Your task to perform on an android device: add a contact Image 0: 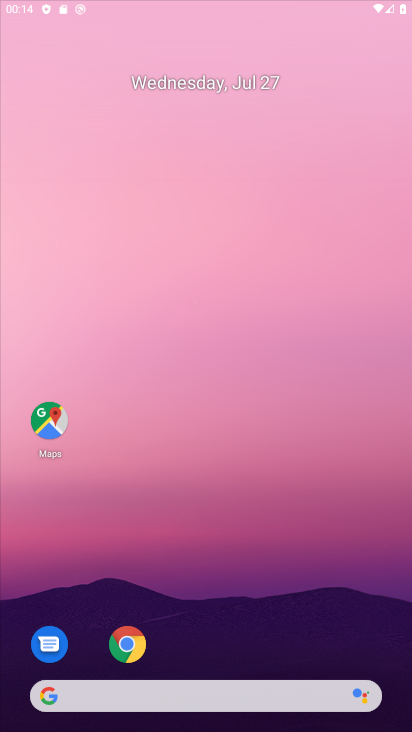
Step 0: drag from (195, 32) to (158, 57)
Your task to perform on an android device: add a contact Image 1: 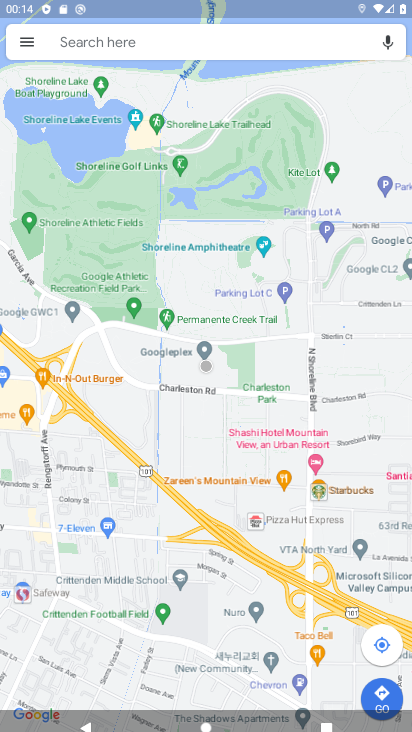
Step 1: drag from (197, 395) to (212, 13)
Your task to perform on an android device: add a contact Image 2: 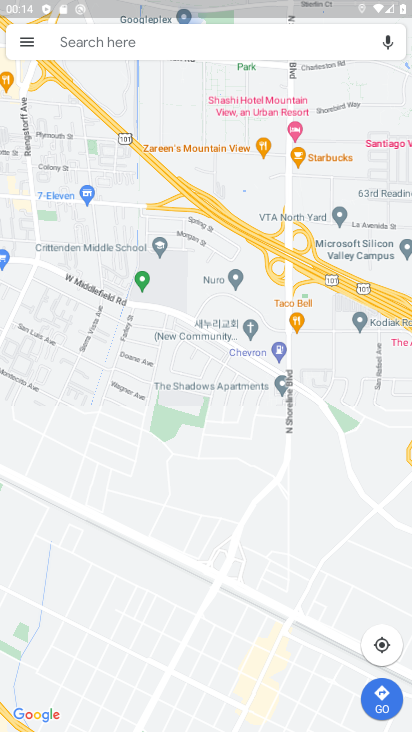
Step 2: press back button
Your task to perform on an android device: add a contact Image 3: 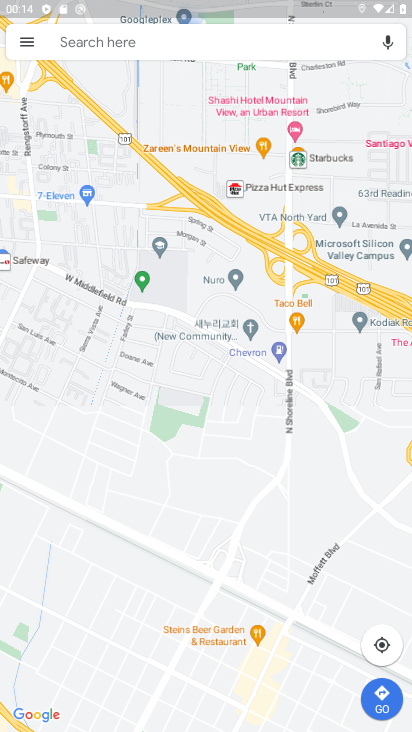
Step 3: press back button
Your task to perform on an android device: add a contact Image 4: 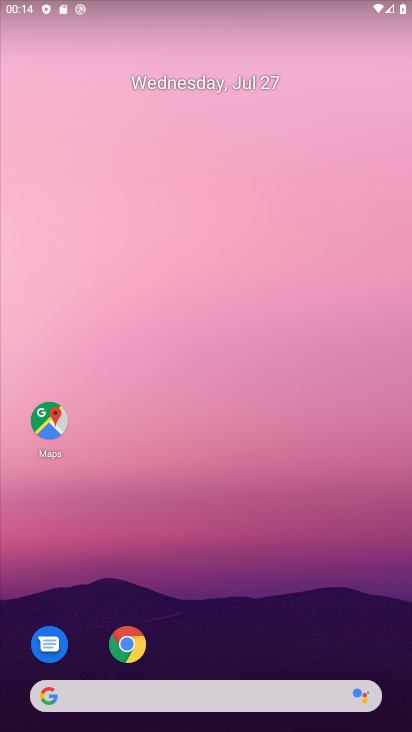
Step 4: drag from (146, 124) to (164, 29)
Your task to perform on an android device: add a contact Image 5: 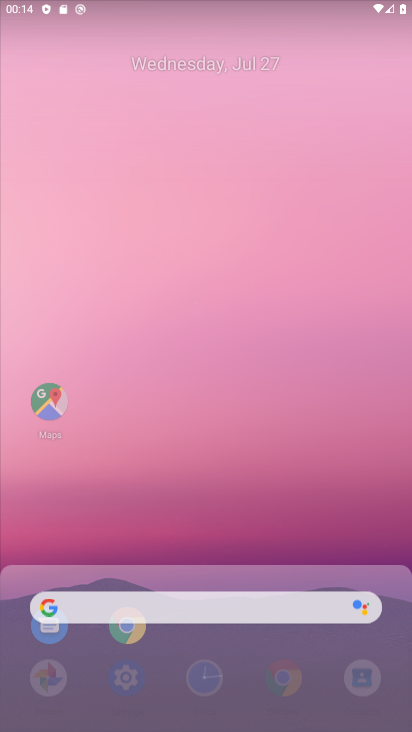
Step 5: drag from (224, 397) to (198, 15)
Your task to perform on an android device: add a contact Image 6: 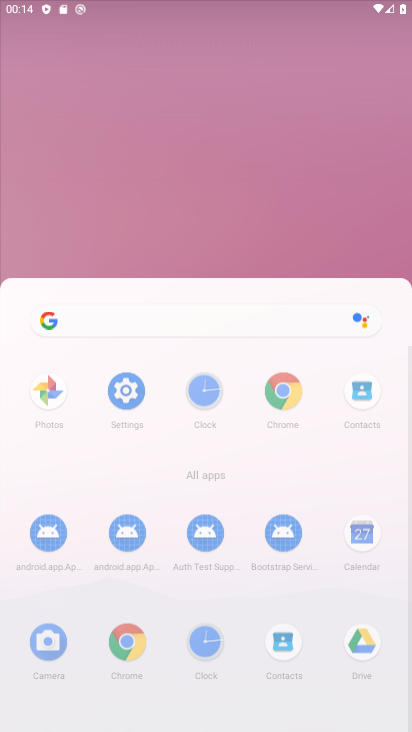
Step 6: drag from (146, 652) to (71, 81)
Your task to perform on an android device: add a contact Image 7: 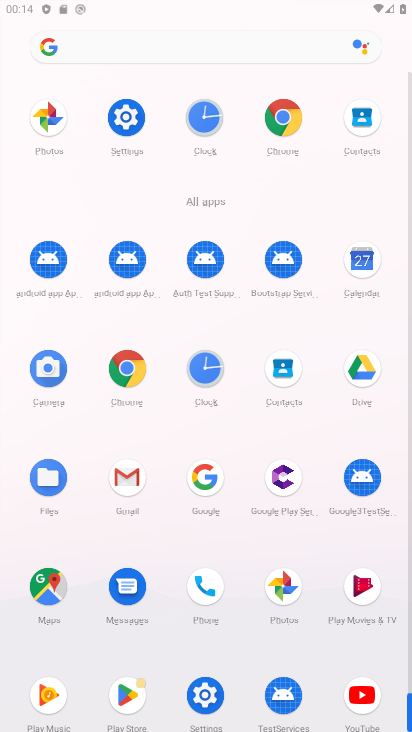
Step 7: drag from (104, 525) to (31, 90)
Your task to perform on an android device: add a contact Image 8: 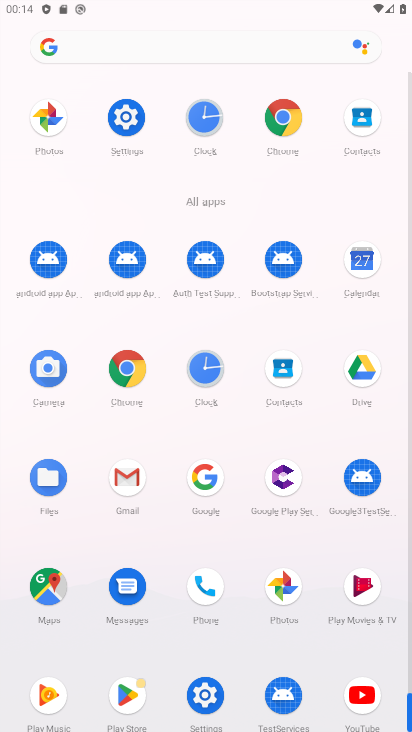
Step 8: drag from (126, 590) to (128, 125)
Your task to perform on an android device: add a contact Image 9: 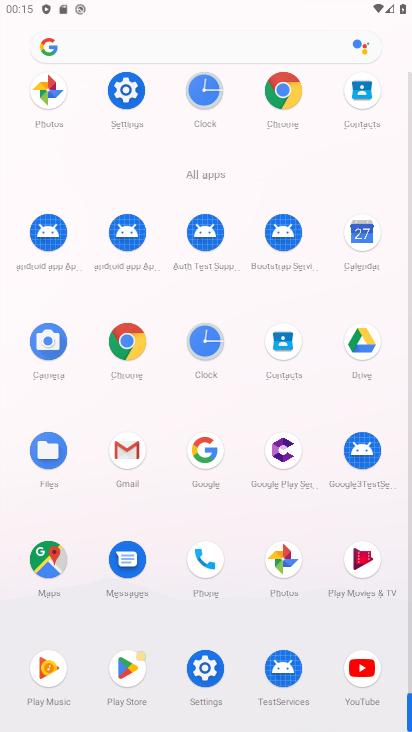
Step 9: click (298, 344)
Your task to perform on an android device: add a contact Image 10: 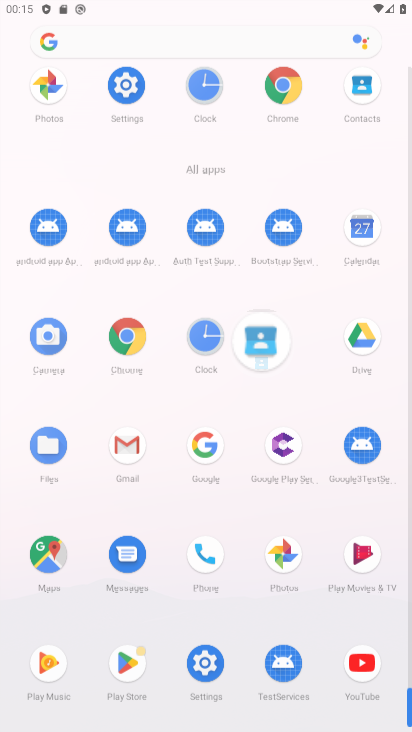
Step 10: click (295, 342)
Your task to perform on an android device: add a contact Image 11: 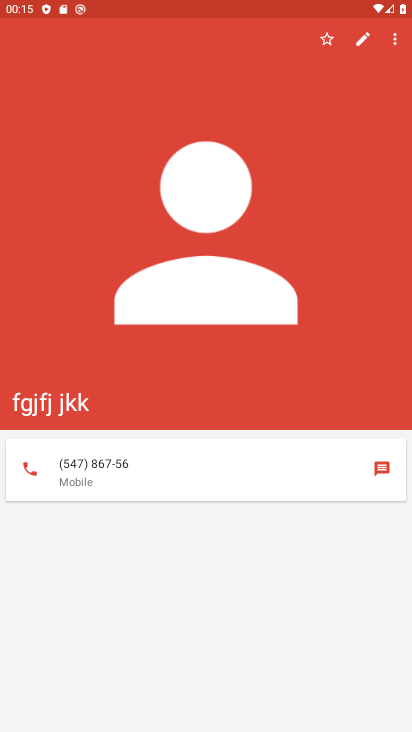
Step 11: task complete